Your task to perform on an android device: Go to location settings Image 0: 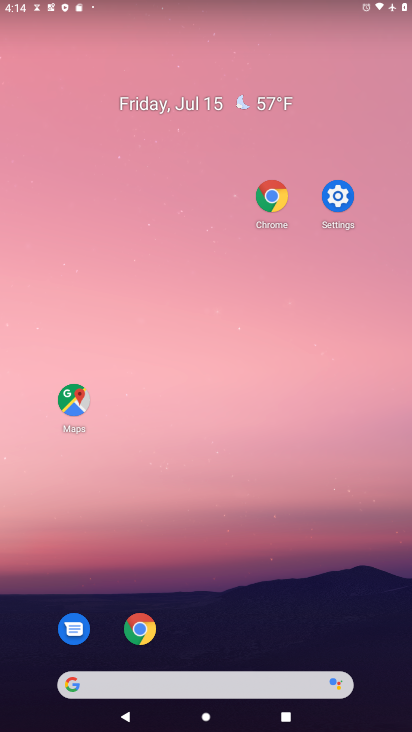
Step 0: drag from (208, 634) to (195, 4)
Your task to perform on an android device: Go to location settings Image 1: 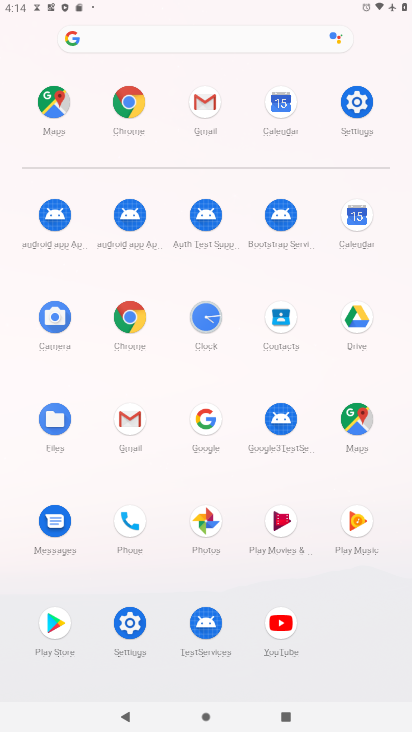
Step 1: click (128, 619)
Your task to perform on an android device: Go to location settings Image 2: 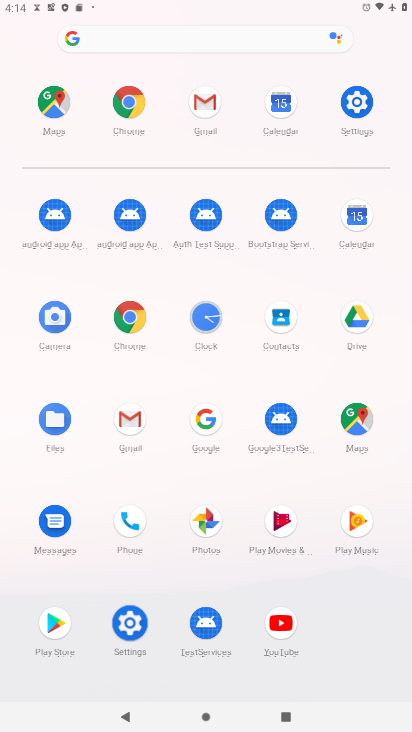
Step 2: click (128, 619)
Your task to perform on an android device: Go to location settings Image 3: 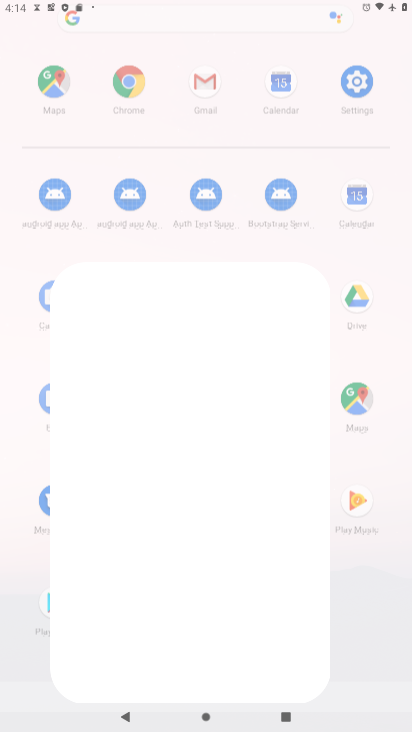
Step 3: click (128, 619)
Your task to perform on an android device: Go to location settings Image 4: 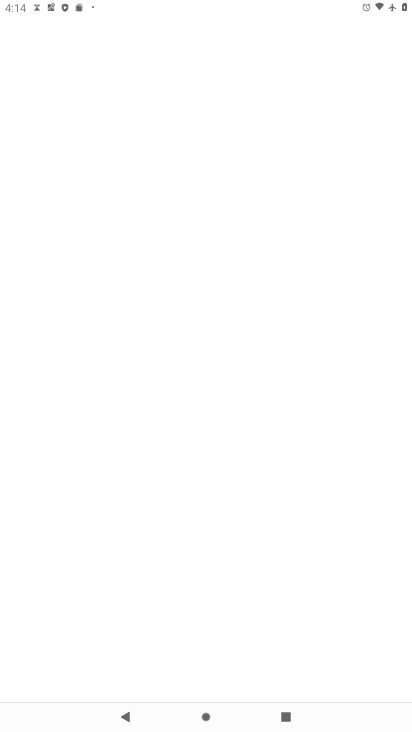
Step 4: click (129, 618)
Your task to perform on an android device: Go to location settings Image 5: 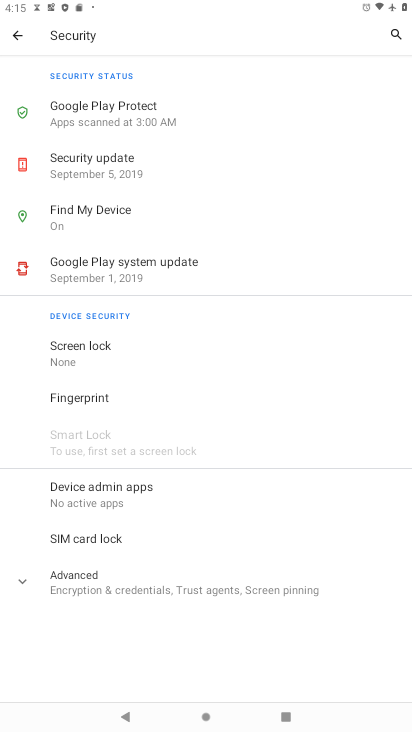
Step 5: click (24, 27)
Your task to perform on an android device: Go to location settings Image 6: 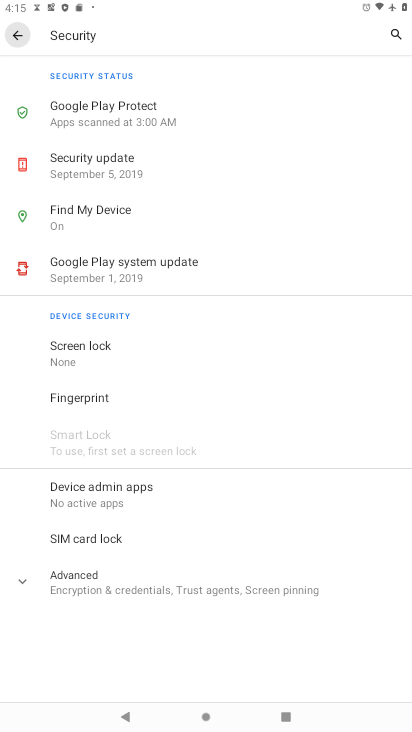
Step 6: click (24, 27)
Your task to perform on an android device: Go to location settings Image 7: 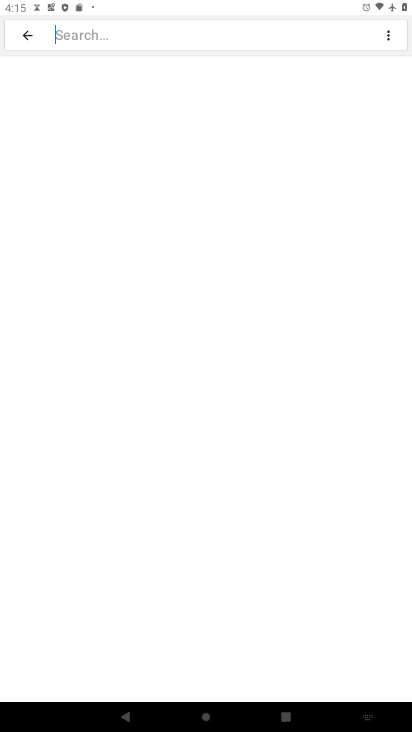
Step 7: click (19, 28)
Your task to perform on an android device: Go to location settings Image 8: 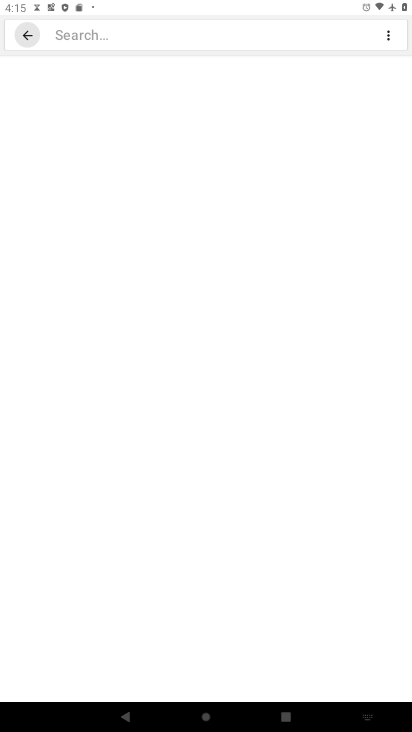
Step 8: click (19, 27)
Your task to perform on an android device: Go to location settings Image 9: 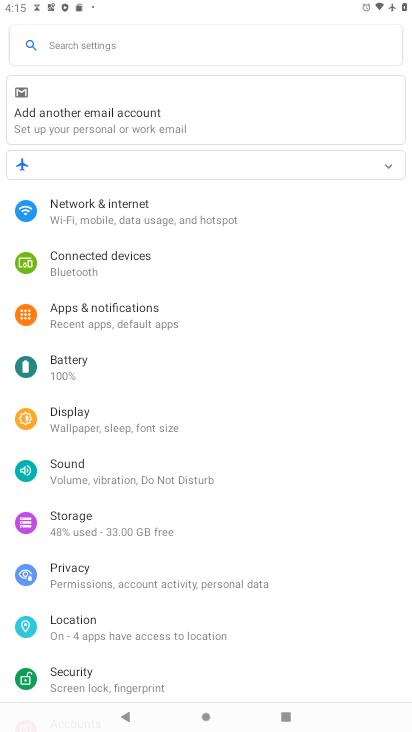
Step 9: click (82, 630)
Your task to perform on an android device: Go to location settings Image 10: 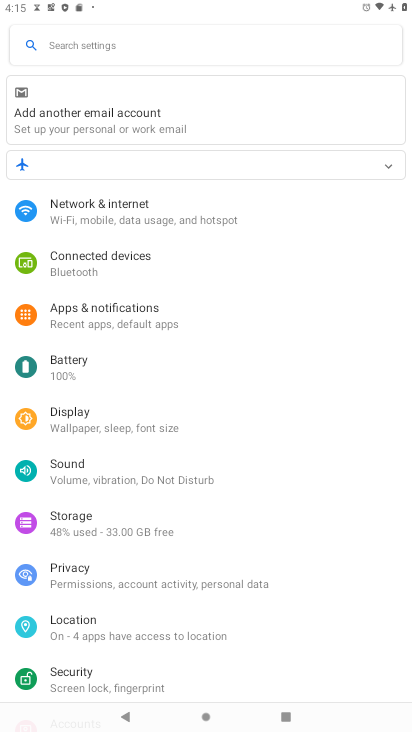
Step 10: click (82, 630)
Your task to perform on an android device: Go to location settings Image 11: 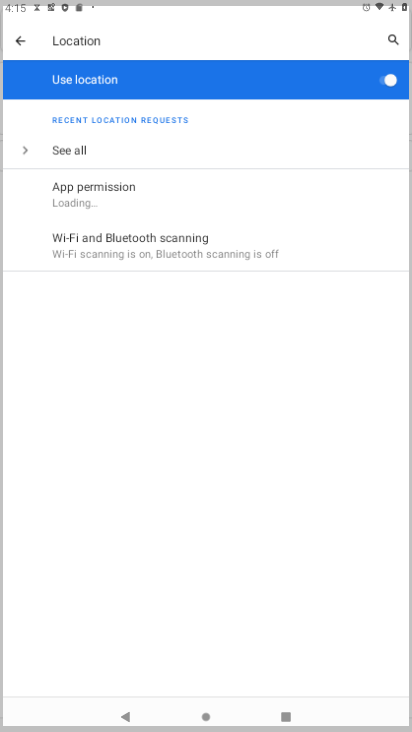
Step 11: click (82, 630)
Your task to perform on an android device: Go to location settings Image 12: 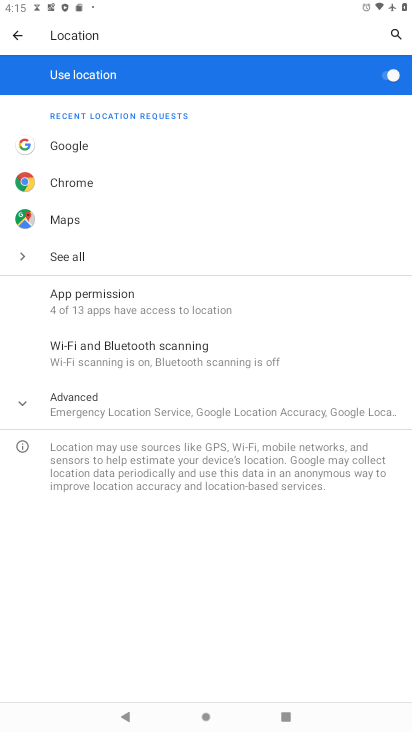
Step 12: click (123, 405)
Your task to perform on an android device: Go to location settings Image 13: 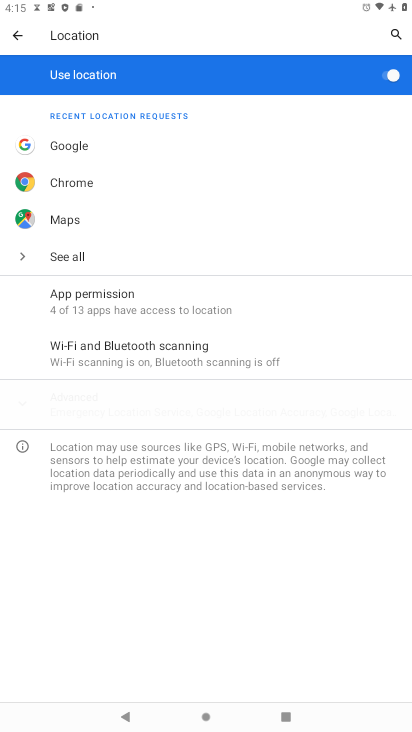
Step 13: click (126, 406)
Your task to perform on an android device: Go to location settings Image 14: 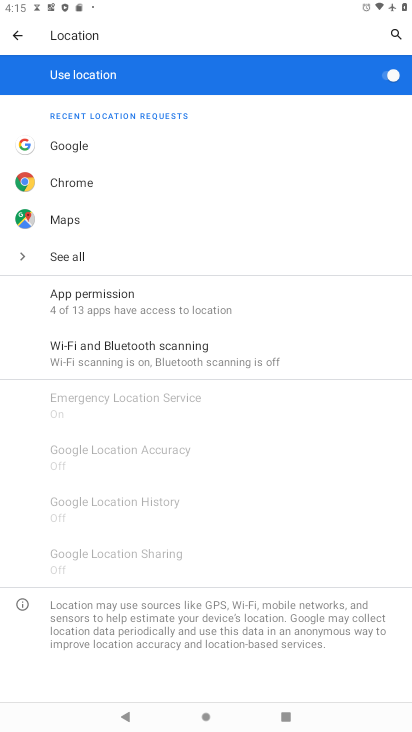
Step 14: click (127, 406)
Your task to perform on an android device: Go to location settings Image 15: 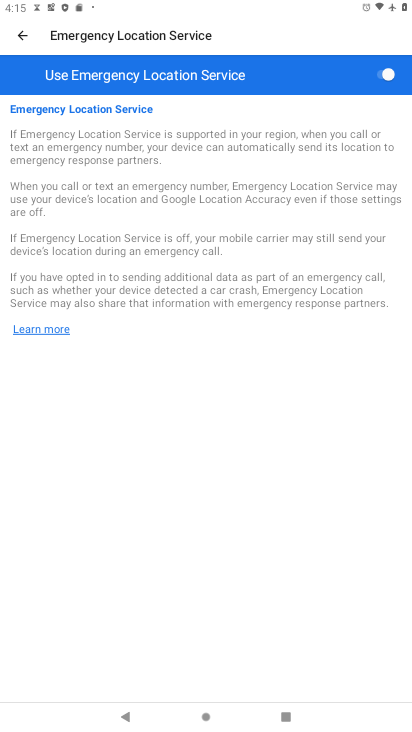
Step 15: click (18, 25)
Your task to perform on an android device: Go to location settings Image 16: 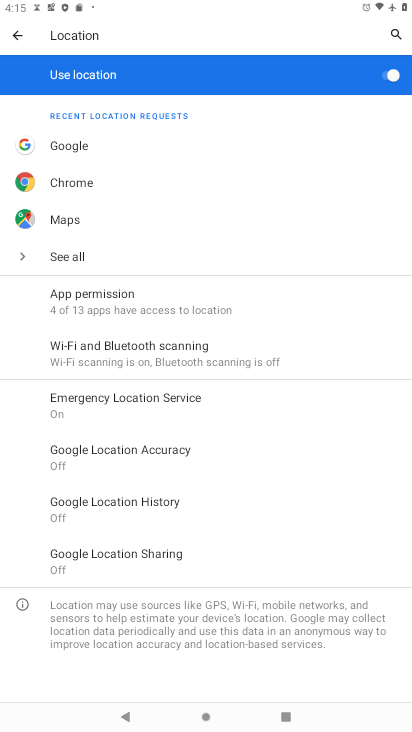
Step 16: task complete